Your task to perform on an android device: find which apps use the phone's location Image 0: 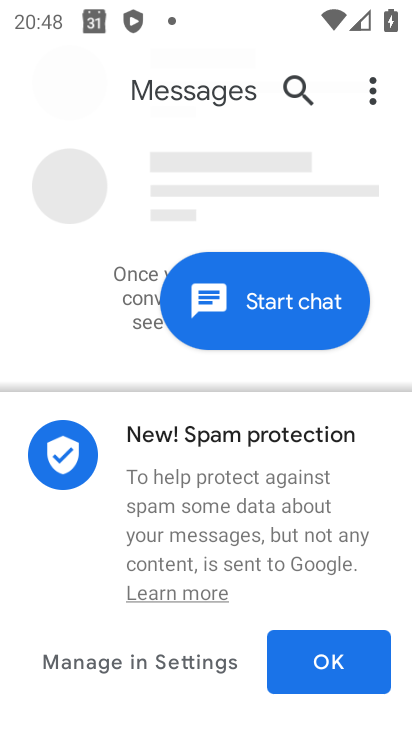
Step 0: press home button
Your task to perform on an android device: find which apps use the phone's location Image 1: 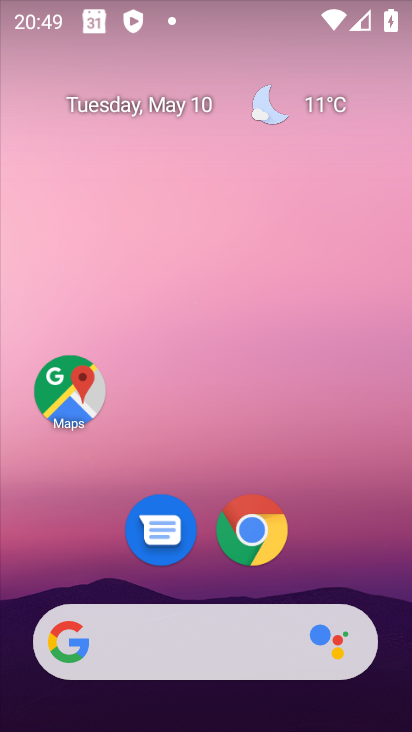
Step 1: drag from (315, 495) to (334, 188)
Your task to perform on an android device: find which apps use the phone's location Image 2: 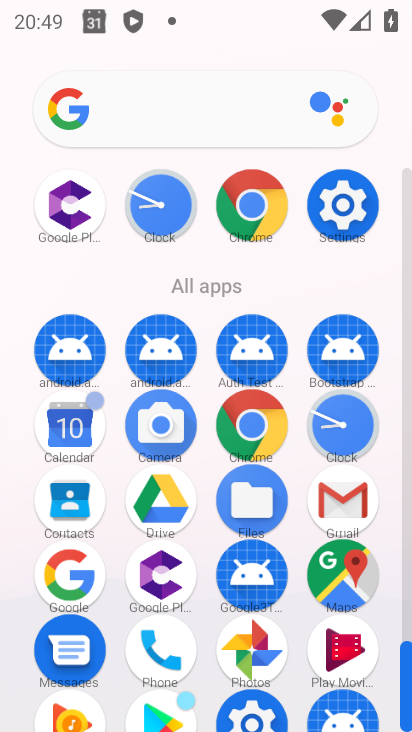
Step 2: click (360, 219)
Your task to perform on an android device: find which apps use the phone's location Image 3: 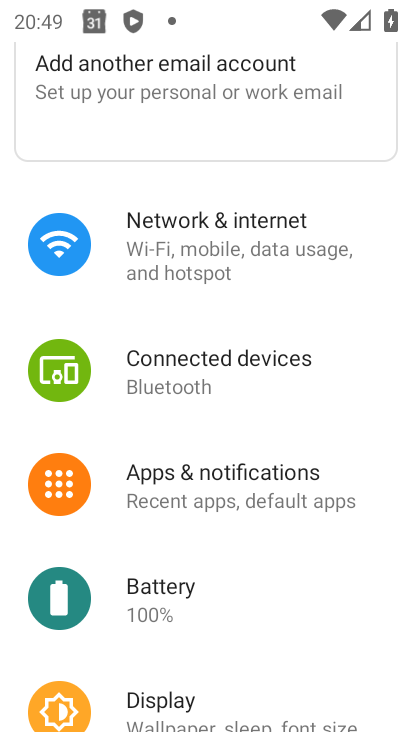
Step 3: drag from (230, 535) to (264, 234)
Your task to perform on an android device: find which apps use the phone's location Image 4: 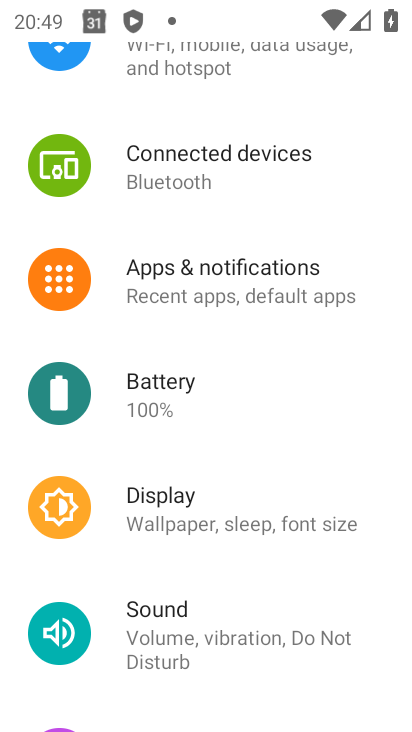
Step 4: drag from (278, 403) to (267, 560)
Your task to perform on an android device: find which apps use the phone's location Image 5: 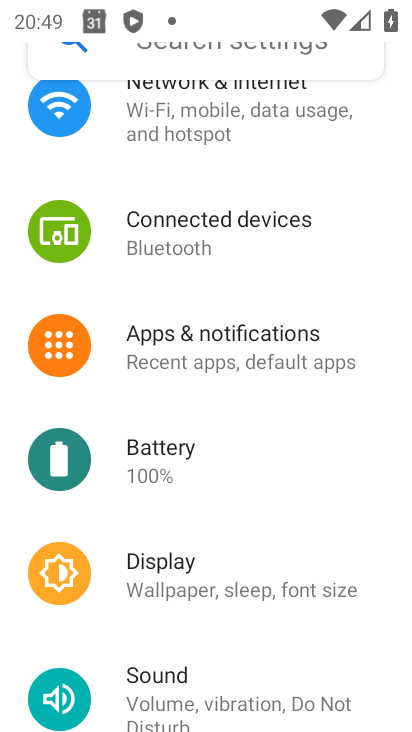
Step 5: drag from (215, 286) to (298, 256)
Your task to perform on an android device: find which apps use the phone's location Image 6: 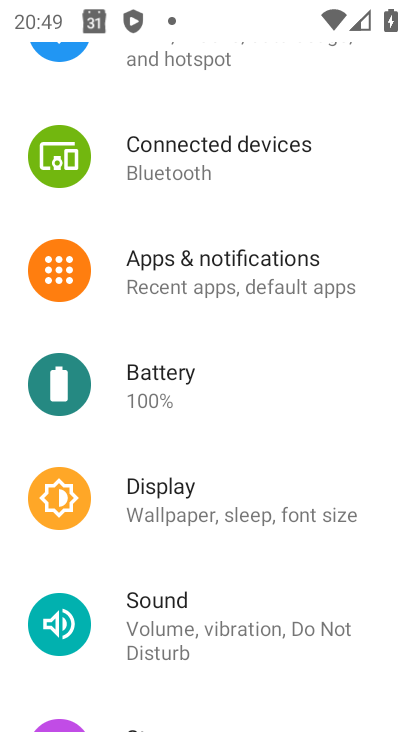
Step 6: drag from (261, 629) to (295, 325)
Your task to perform on an android device: find which apps use the phone's location Image 7: 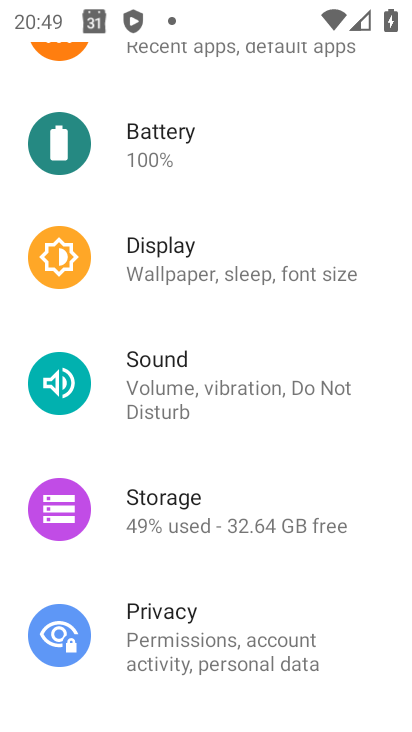
Step 7: drag from (251, 422) to (259, 654)
Your task to perform on an android device: find which apps use the phone's location Image 8: 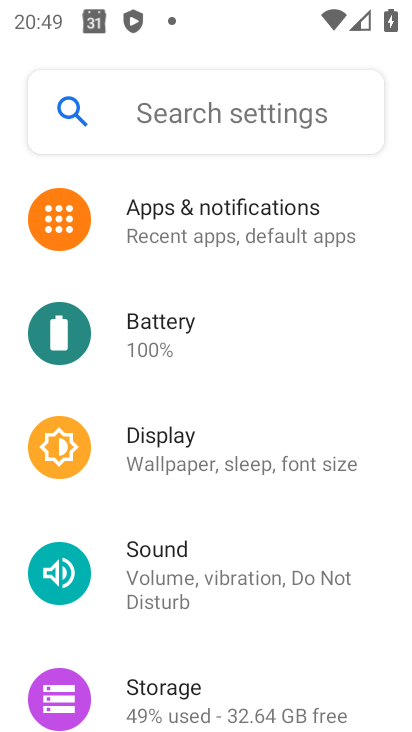
Step 8: drag from (227, 571) to (283, 197)
Your task to perform on an android device: find which apps use the phone's location Image 9: 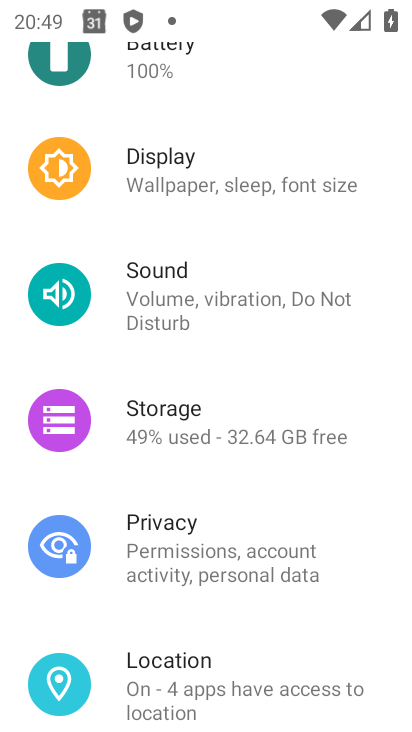
Step 9: drag from (253, 558) to (288, 268)
Your task to perform on an android device: find which apps use the phone's location Image 10: 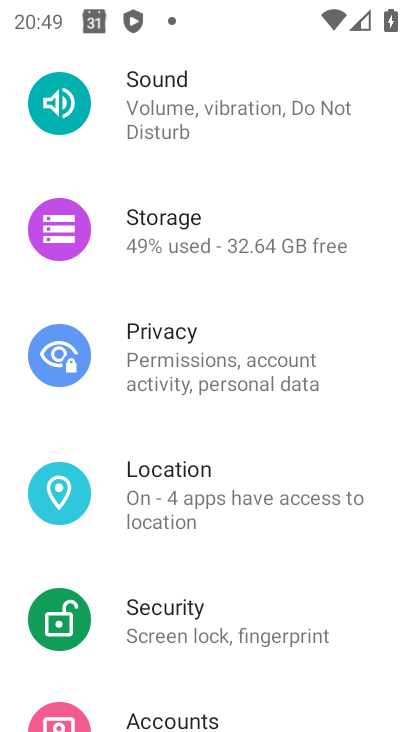
Step 10: click (247, 493)
Your task to perform on an android device: find which apps use the phone's location Image 11: 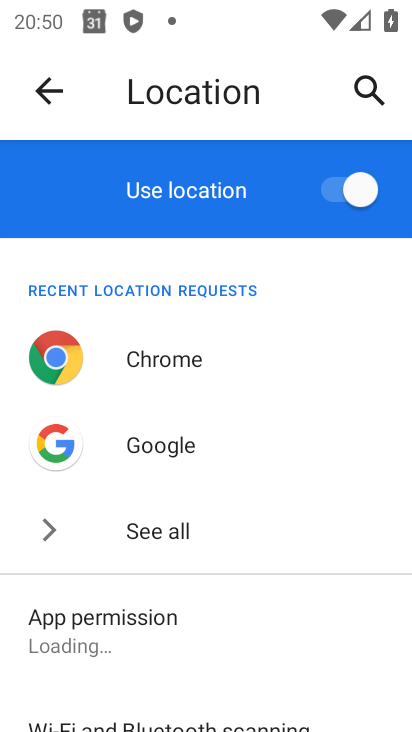
Step 11: click (197, 366)
Your task to perform on an android device: find which apps use the phone's location Image 12: 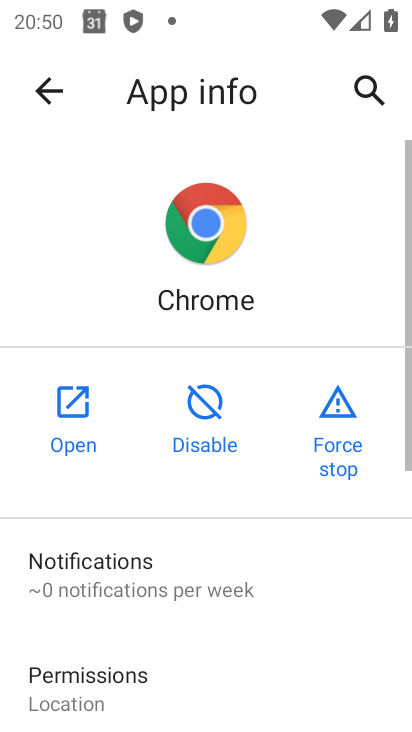
Step 12: drag from (213, 685) to (279, 145)
Your task to perform on an android device: find which apps use the phone's location Image 13: 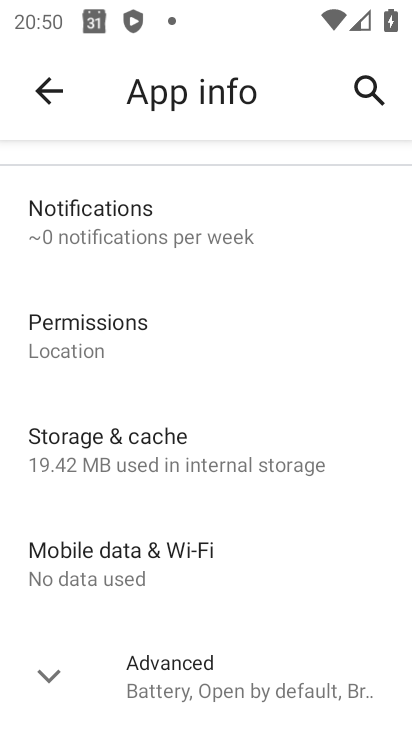
Step 13: click (144, 337)
Your task to perform on an android device: find which apps use the phone's location Image 14: 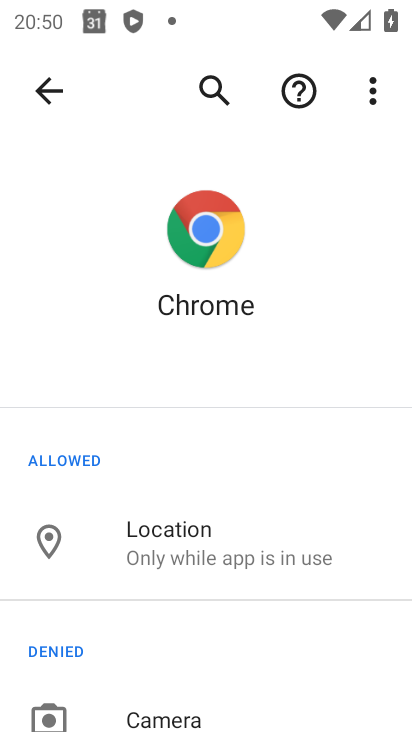
Step 14: task complete